Your task to perform on an android device: Show me the alarms in the clock app Image 0: 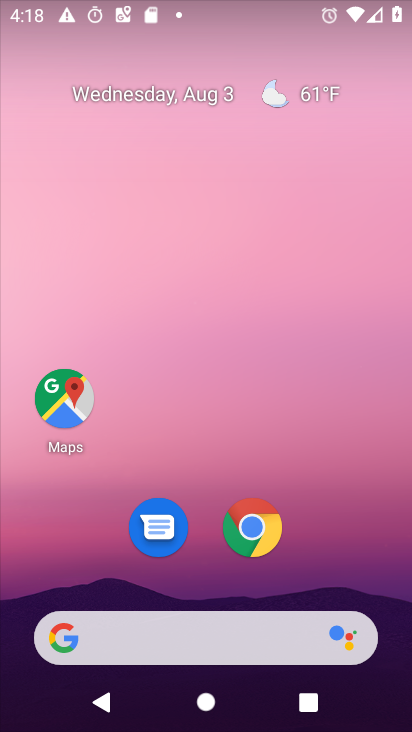
Step 0: drag from (360, 542) to (286, 71)
Your task to perform on an android device: Show me the alarms in the clock app Image 1: 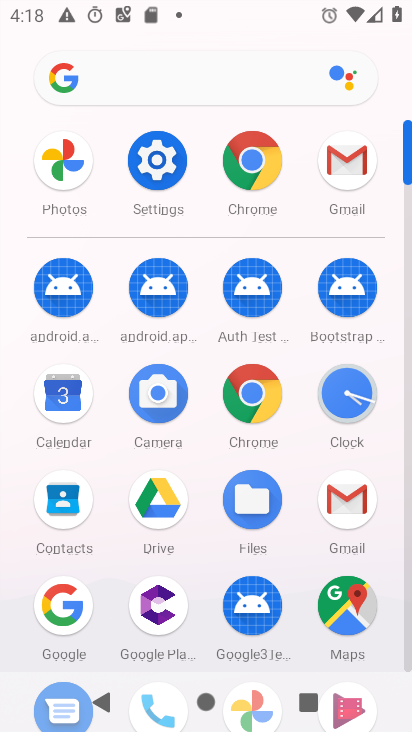
Step 1: click (355, 393)
Your task to perform on an android device: Show me the alarms in the clock app Image 2: 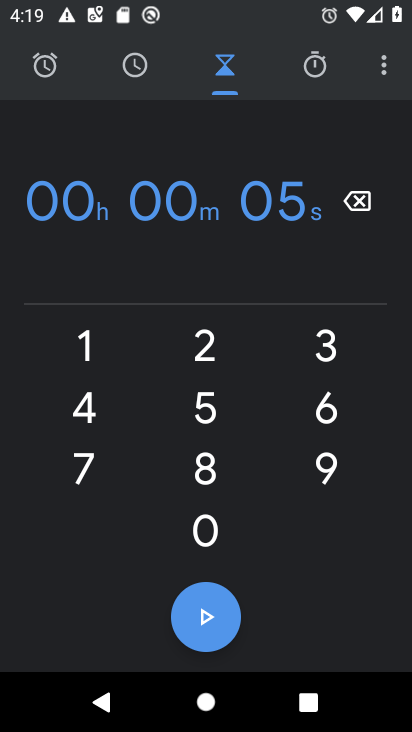
Step 2: click (135, 69)
Your task to perform on an android device: Show me the alarms in the clock app Image 3: 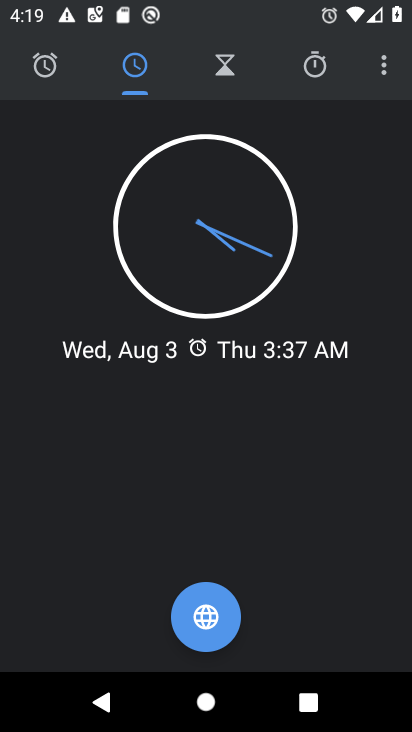
Step 3: click (55, 63)
Your task to perform on an android device: Show me the alarms in the clock app Image 4: 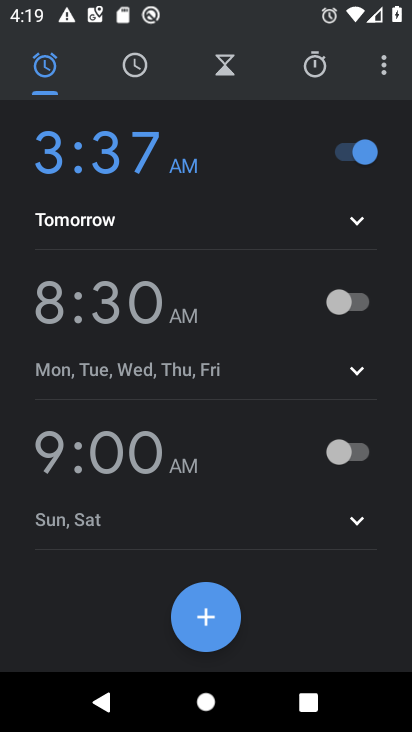
Step 4: task complete